Your task to perform on an android device: Open the map Image 0: 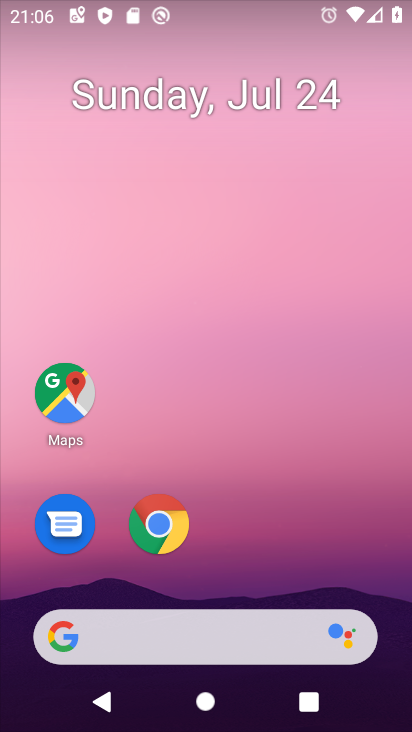
Step 0: click (55, 389)
Your task to perform on an android device: Open the map Image 1: 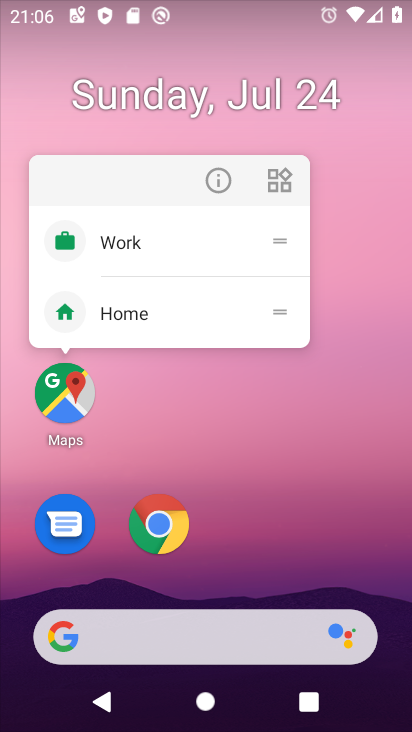
Step 1: click (55, 391)
Your task to perform on an android device: Open the map Image 2: 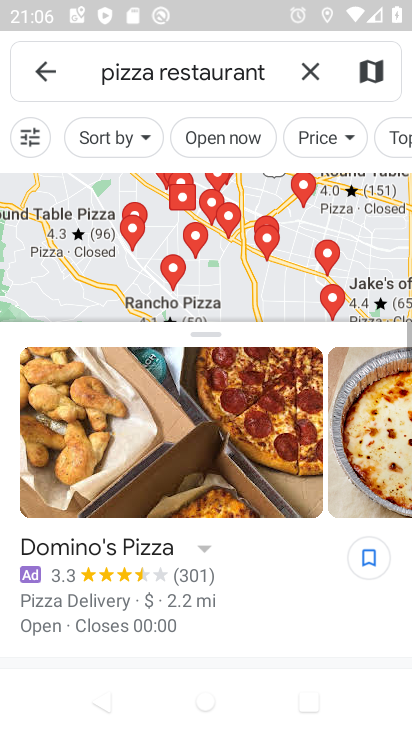
Step 2: click (310, 62)
Your task to perform on an android device: Open the map Image 3: 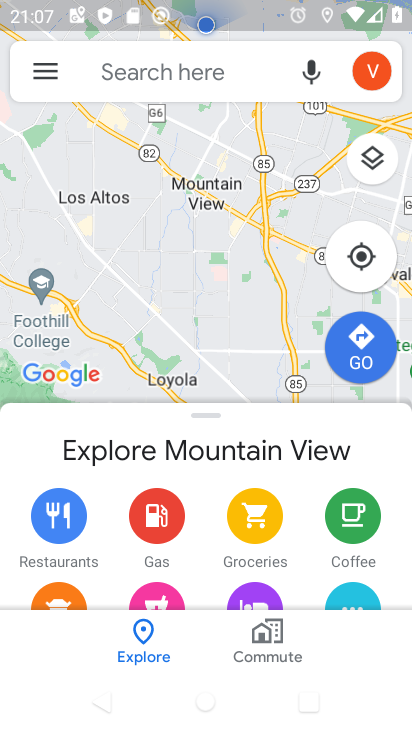
Step 3: task complete